Your task to perform on an android device: toggle show notifications on the lock screen Image 0: 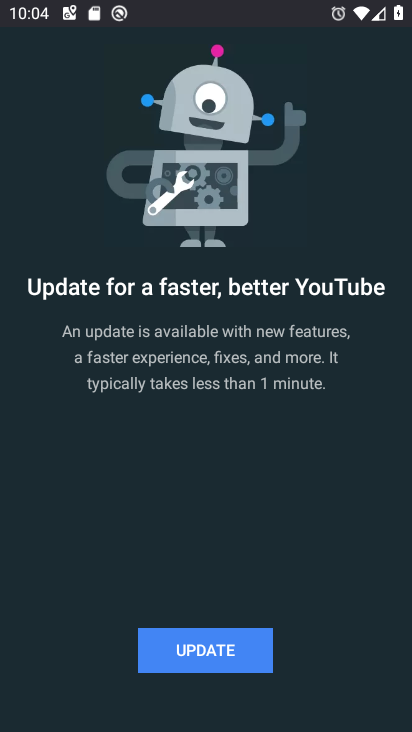
Step 0: press home button
Your task to perform on an android device: toggle show notifications on the lock screen Image 1: 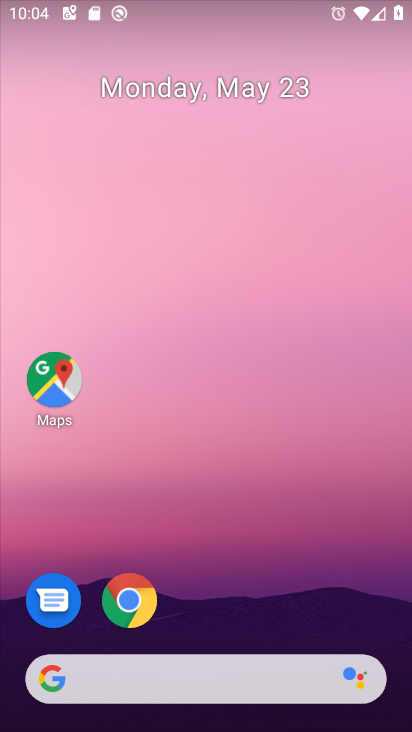
Step 1: drag from (227, 729) to (232, 13)
Your task to perform on an android device: toggle show notifications on the lock screen Image 2: 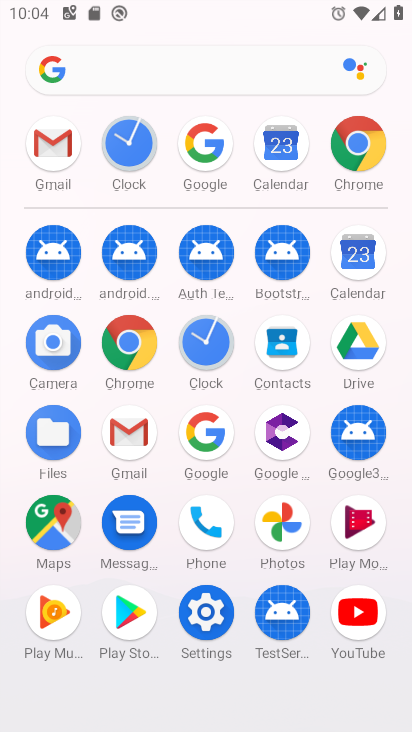
Step 2: click (200, 605)
Your task to perform on an android device: toggle show notifications on the lock screen Image 3: 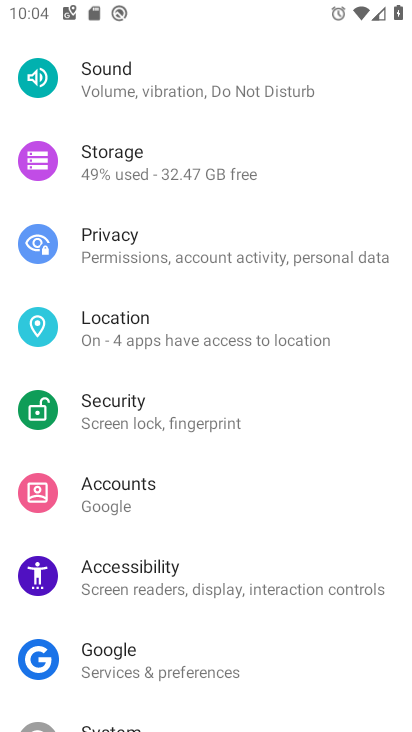
Step 3: drag from (184, 149) to (192, 593)
Your task to perform on an android device: toggle show notifications on the lock screen Image 4: 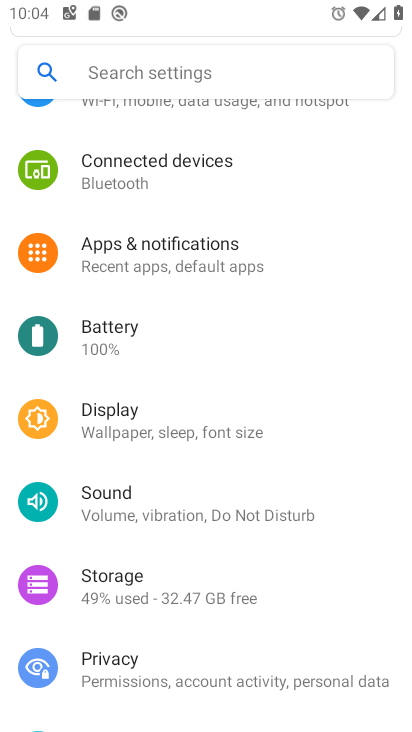
Step 4: click (180, 245)
Your task to perform on an android device: toggle show notifications on the lock screen Image 5: 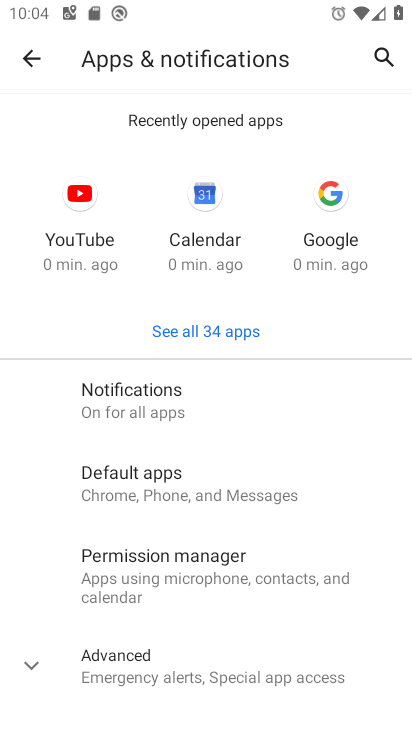
Step 5: click (123, 409)
Your task to perform on an android device: toggle show notifications on the lock screen Image 6: 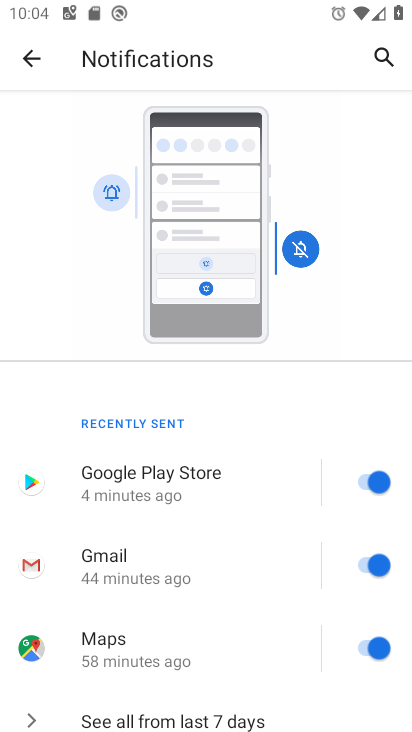
Step 6: drag from (295, 711) to (295, 348)
Your task to perform on an android device: toggle show notifications on the lock screen Image 7: 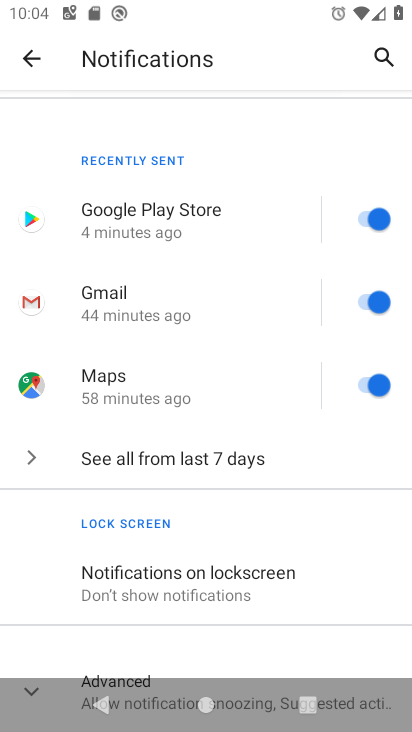
Step 7: drag from (265, 626) to (276, 393)
Your task to perform on an android device: toggle show notifications on the lock screen Image 8: 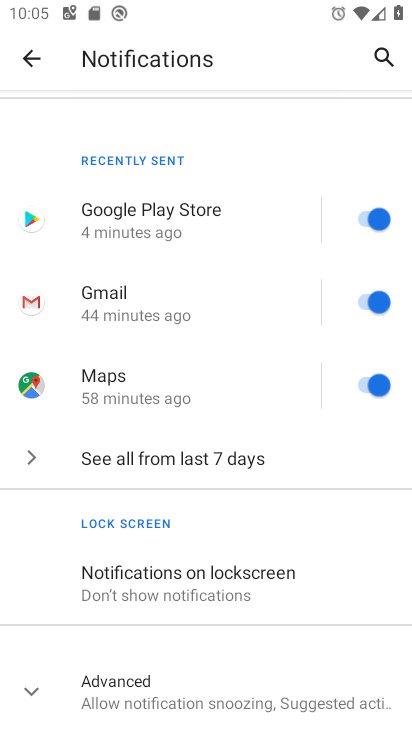
Step 8: click (183, 581)
Your task to perform on an android device: toggle show notifications on the lock screen Image 9: 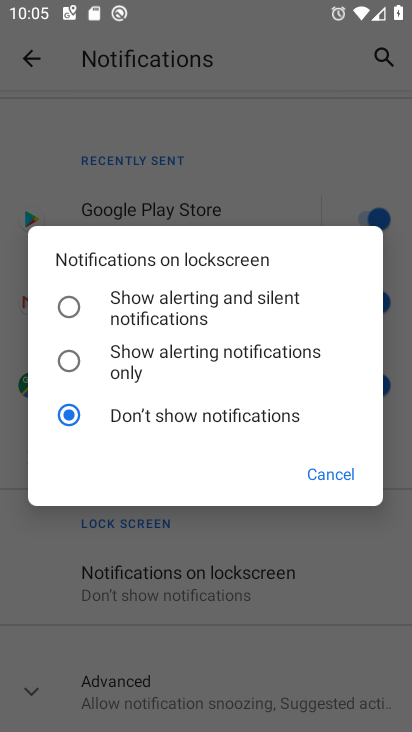
Step 9: click (57, 299)
Your task to perform on an android device: toggle show notifications on the lock screen Image 10: 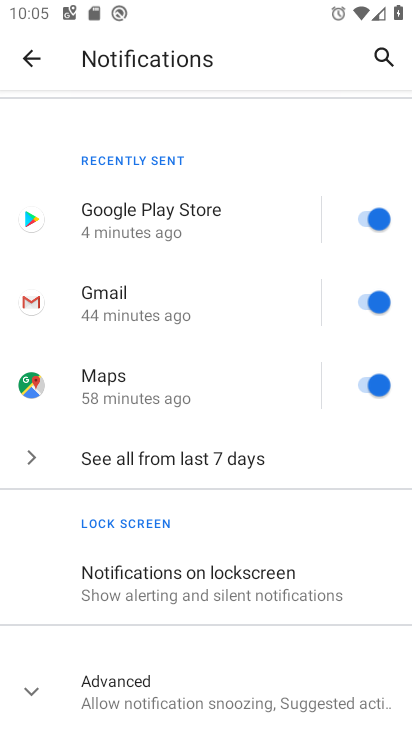
Step 10: task complete